Your task to perform on an android device: turn off sleep mode Image 0: 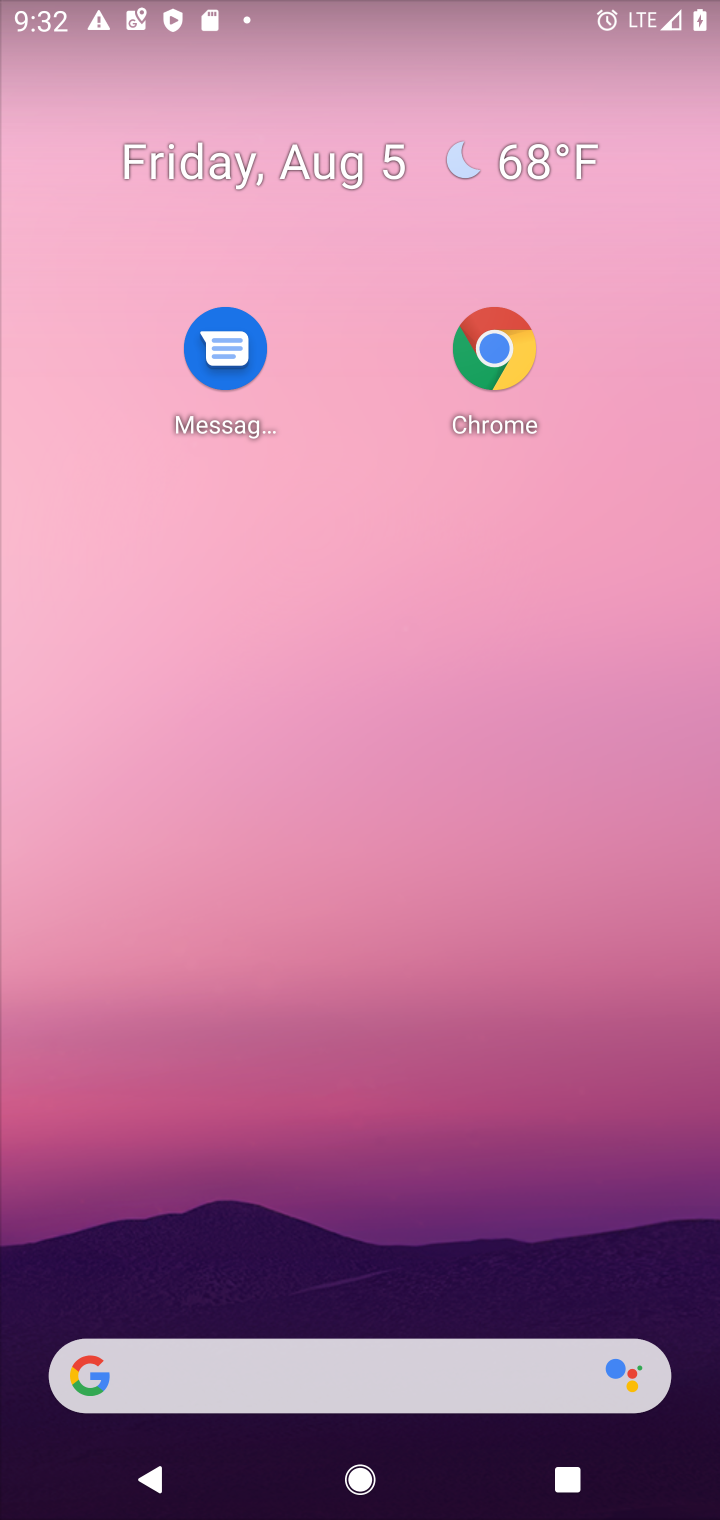
Step 0: drag from (469, 1432) to (327, 463)
Your task to perform on an android device: turn off sleep mode Image 1: 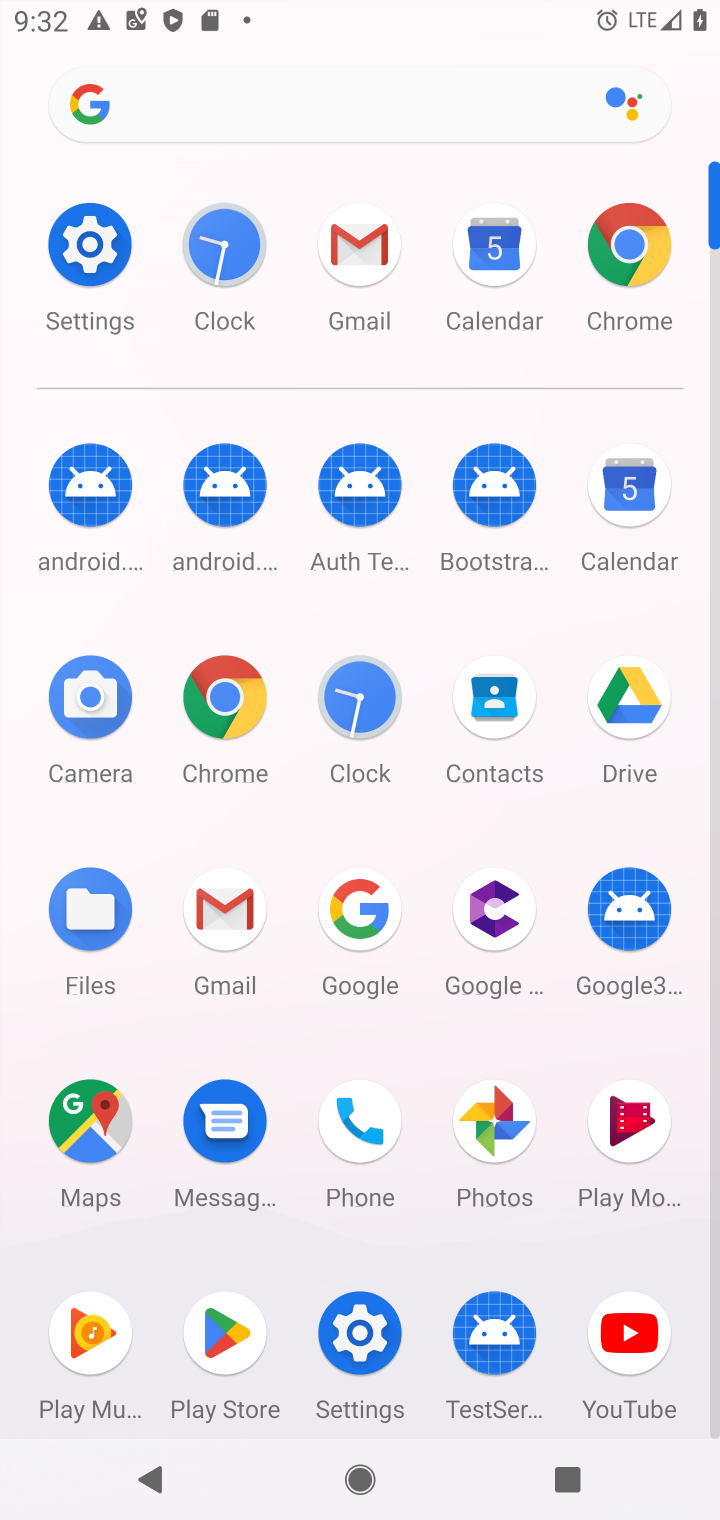
Step 1: click (73, 260)
Your task to perform on an android device: turn off sleep mode Image 2: 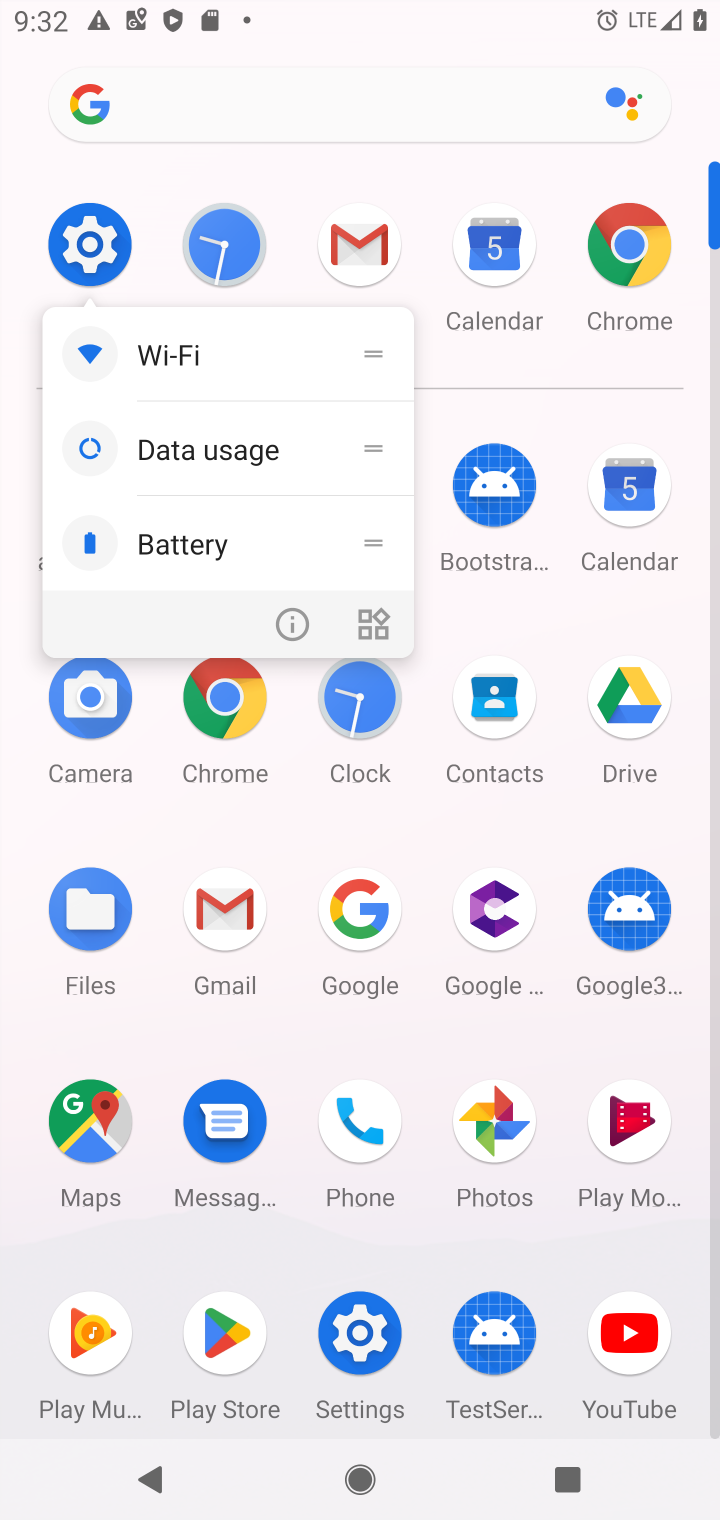
Step 2: click (73, 264)
Your task to perform on an android device: turn off sleep mode Image 3: 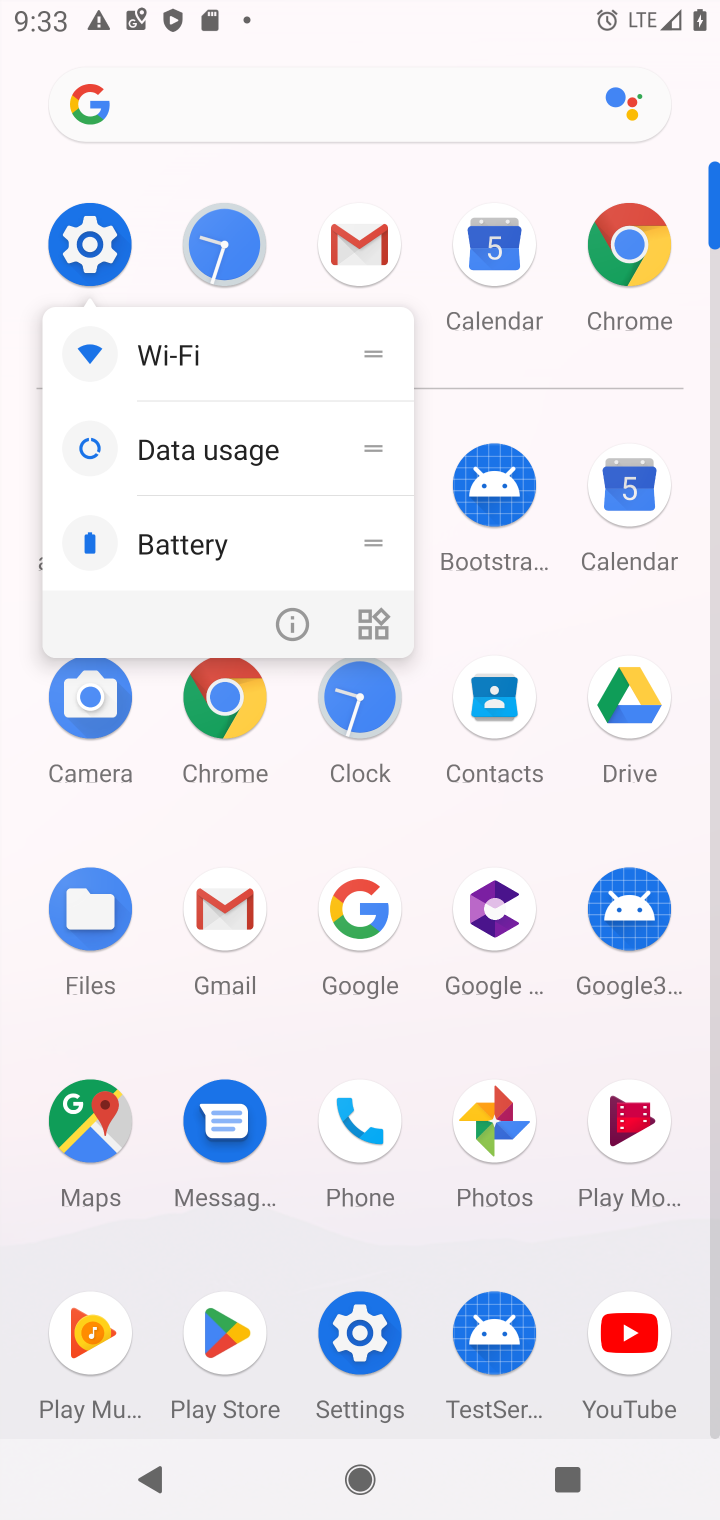
Step 3: click (76, 247)
Your task to perform on an android device: turn off sleep mode Image 4: 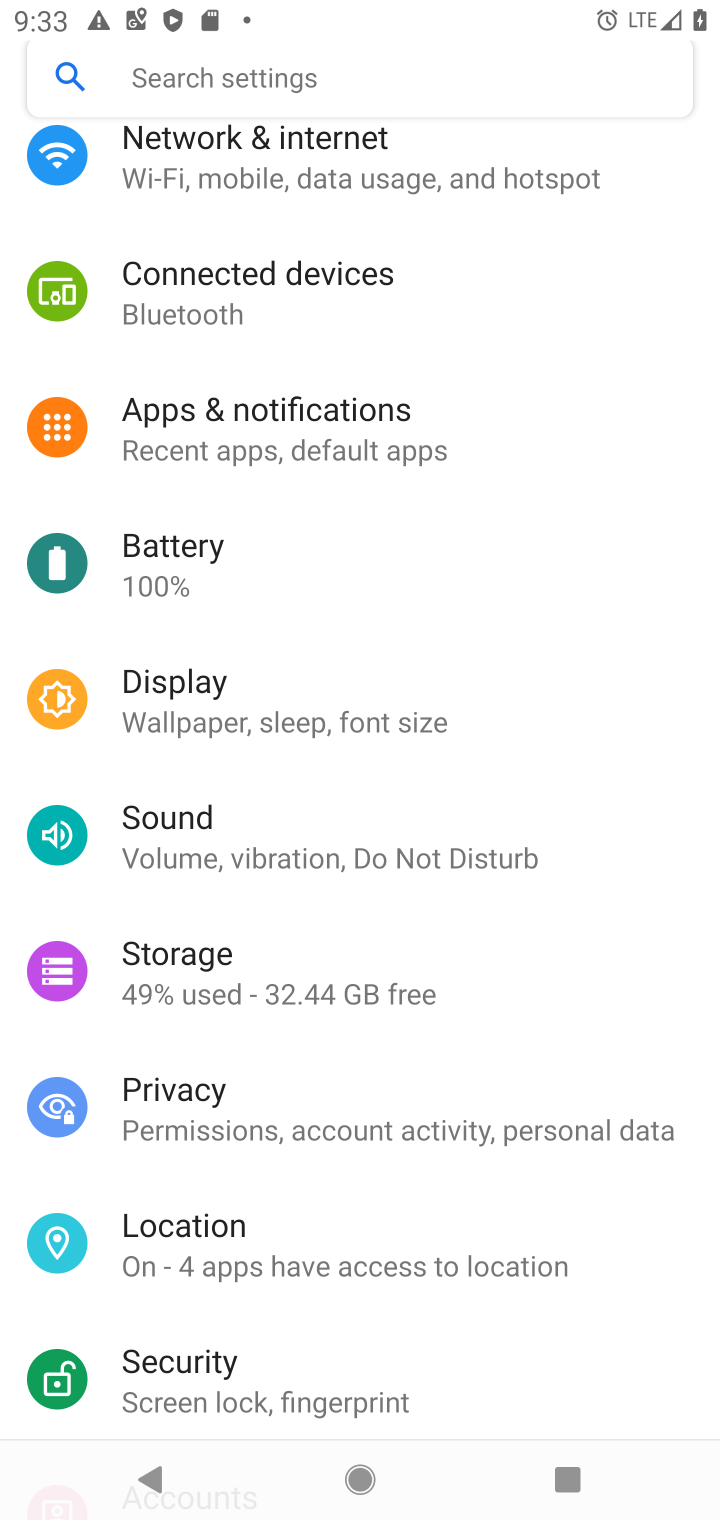
Step 4: click (279, 82)
Your task to perform on an android device: turn off sleep mode Image 5: 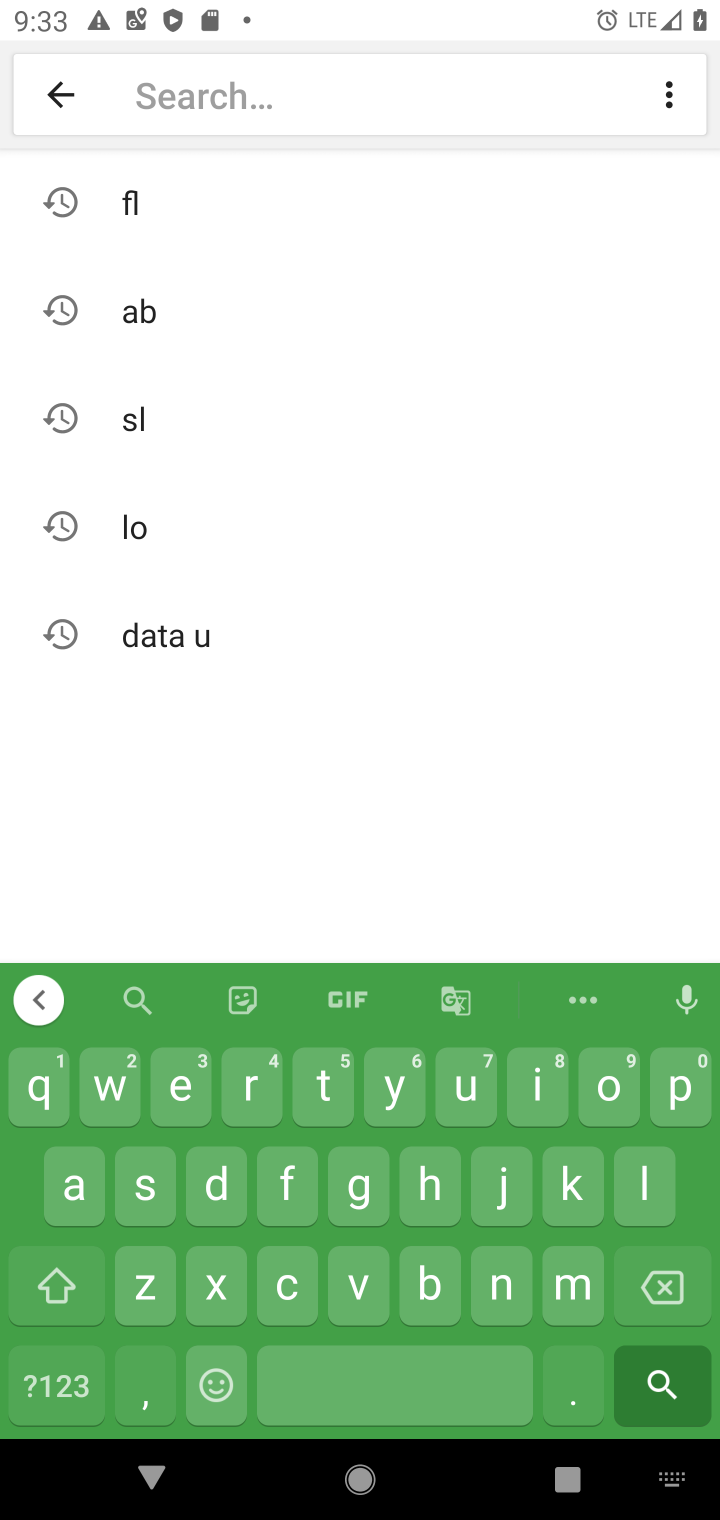
Step 5: click (186, 411)
Your task to perform on an android device: turn off sleep mode Image 6: 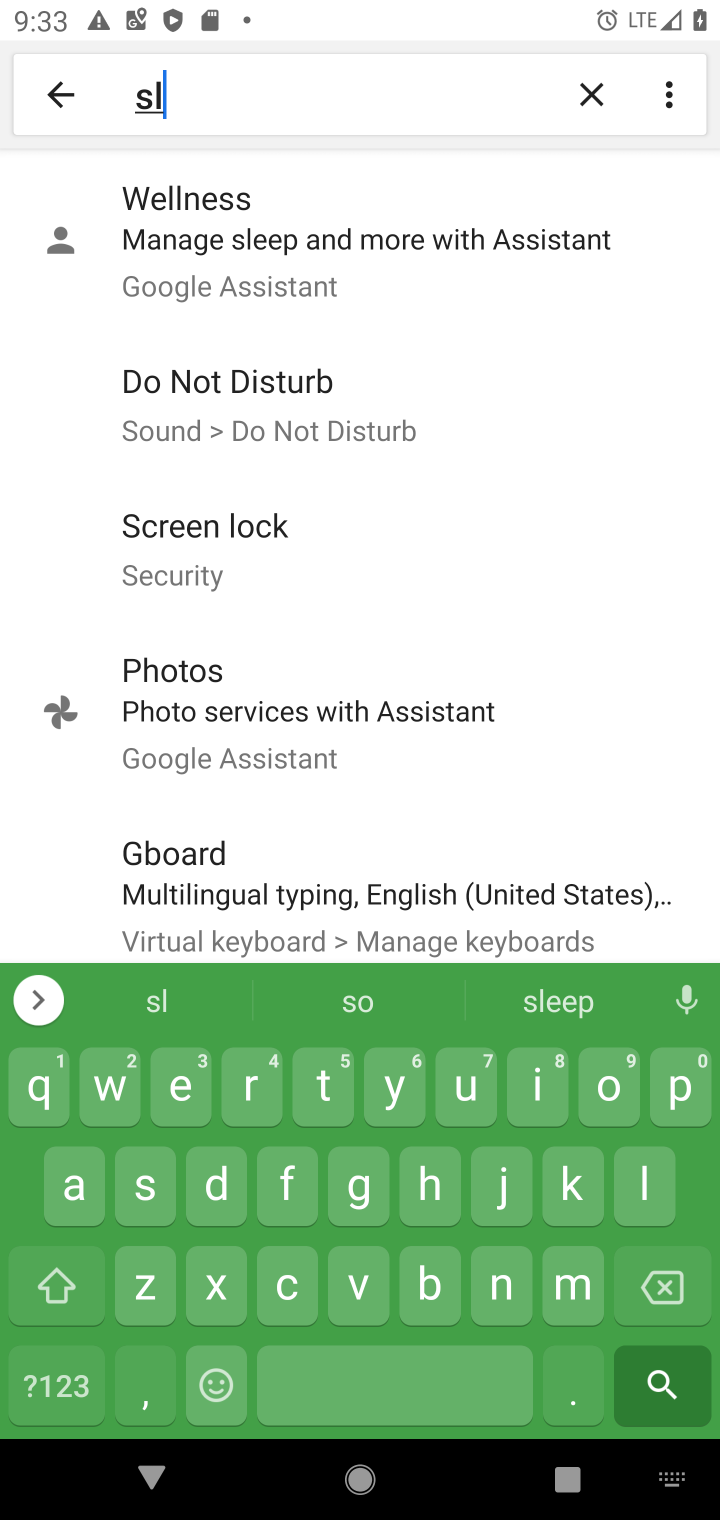
Step 6: click (289, 421)
Your task to perform on an android device: turn off sleep mode Image 7: 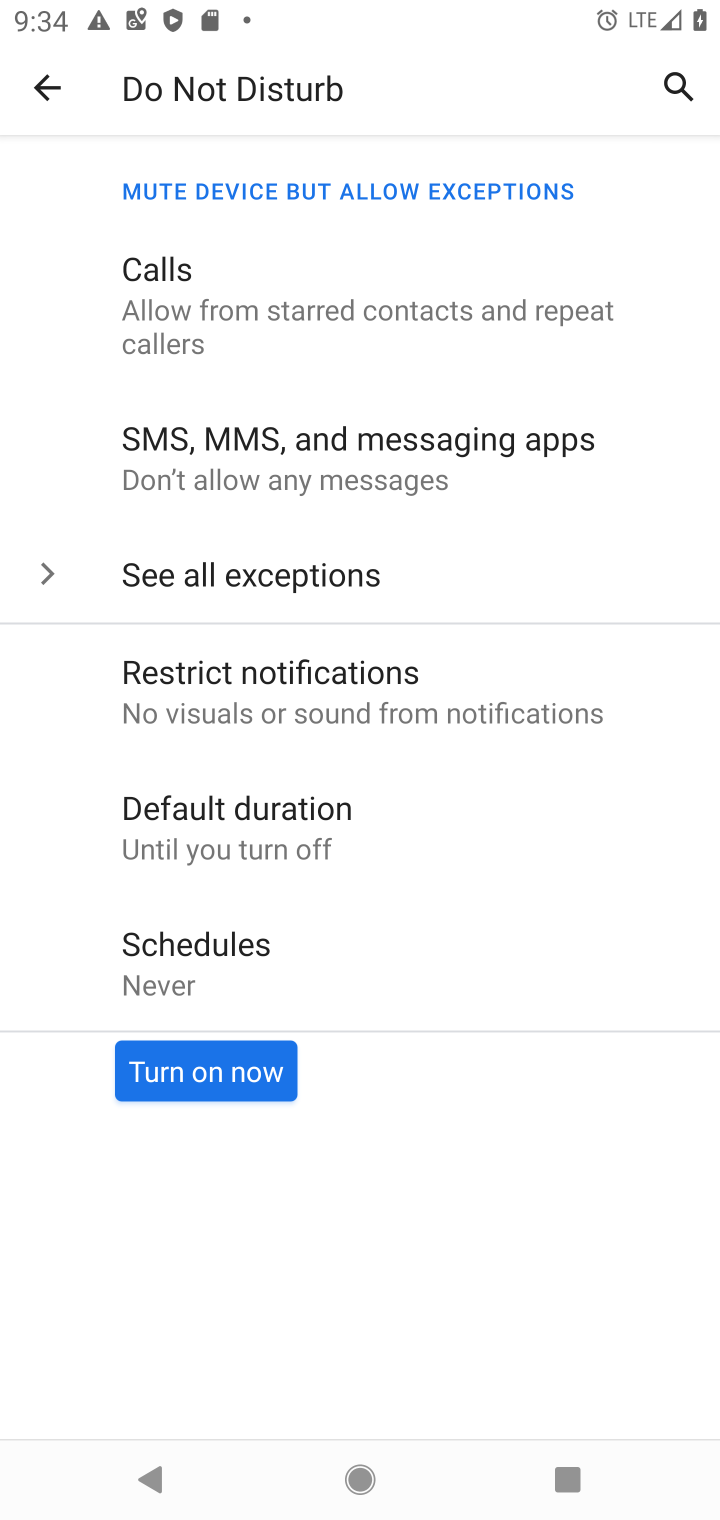
Step 7: task complete